Your task to perform on an android device: Open wifi settings Image 0: 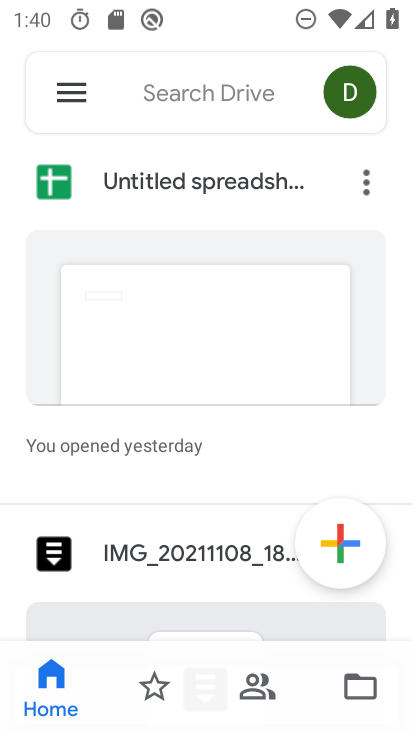
Step 0: press home button
Your task to perform on an android device: Open wifi settings Image 1: 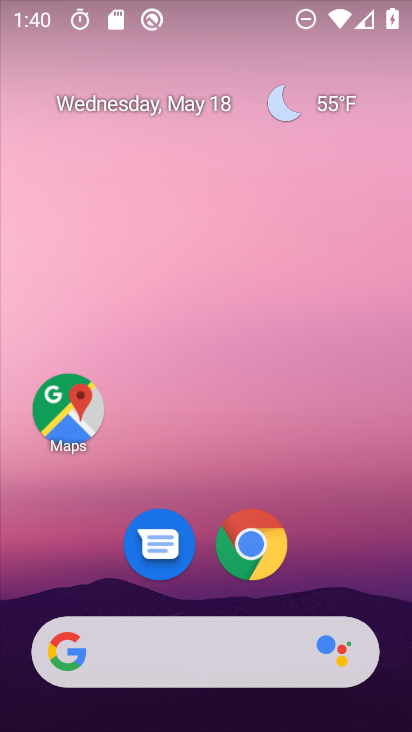
Step 1: drag from (324, 565) to (284, 97)
Your task to perform on an android device: Open wifi settings Image 2: 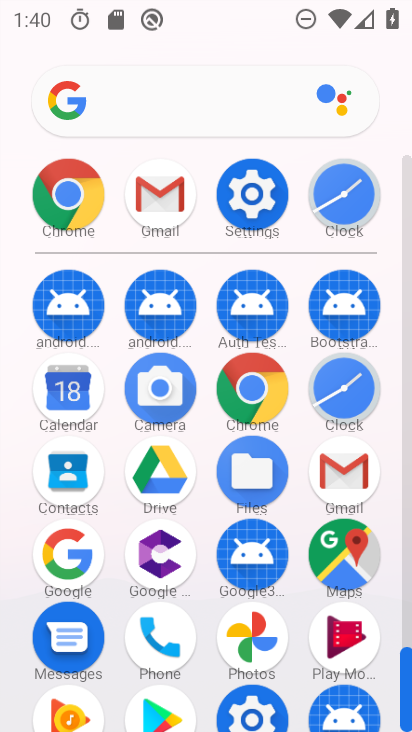
Step 2: click (262, 190)
Your task to perform on an android device: Open wifi settings Image 3: 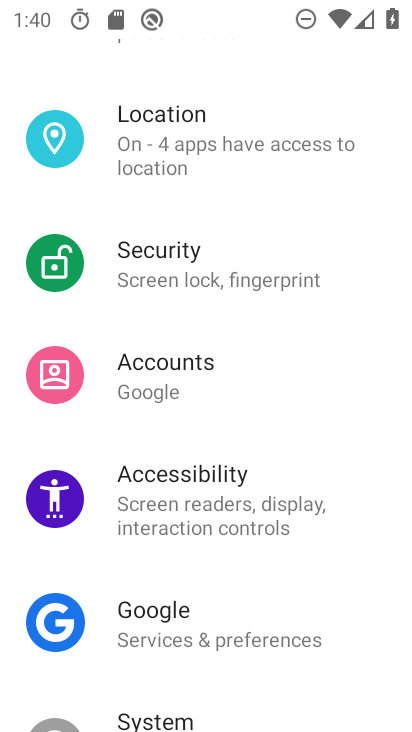
Step 3: drag from (262, 190) to (281, 612)
Your task to perform on an android device: Open wifi settings Image 4: 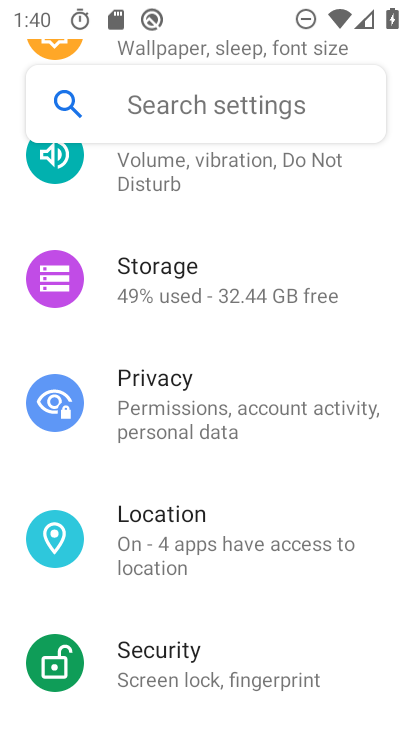
Step 4: drag from (303, 256) to (307, 589)
Your task to perform on an android device: Open wifi settings Image 5: 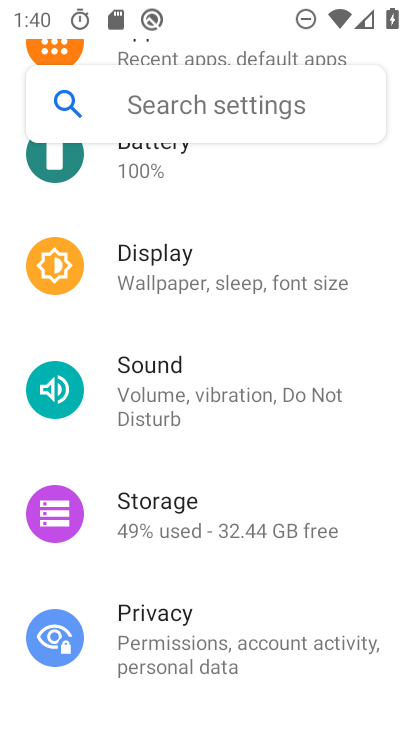
Step 5: drag from (299, 288) to (295, 700)
Your task to perform on an android device: Open wifi settings Image 6: 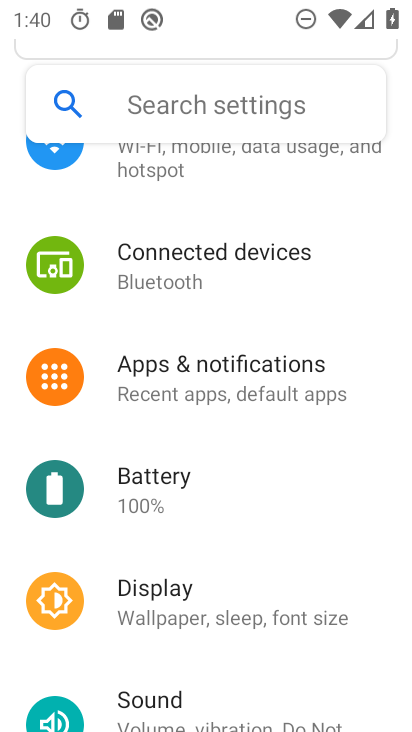
Step 6: drag from (310, 326) to (303, 689)
Your task to perform on an android device: Open wifi settings Image 7: 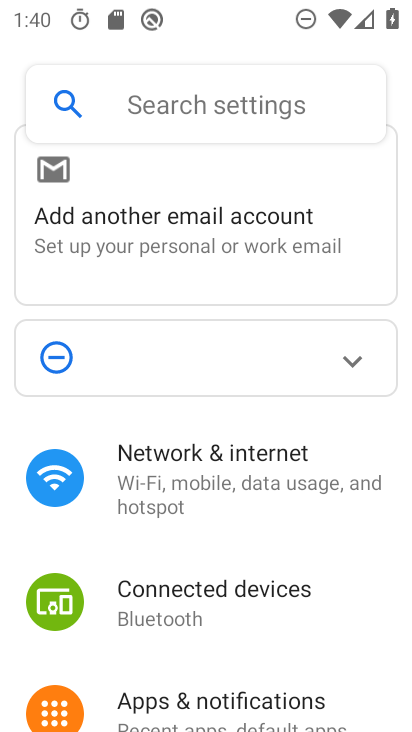
Step 7: click (278, 492)
Your task to perform on an android device: Open wifi settings Image 8: 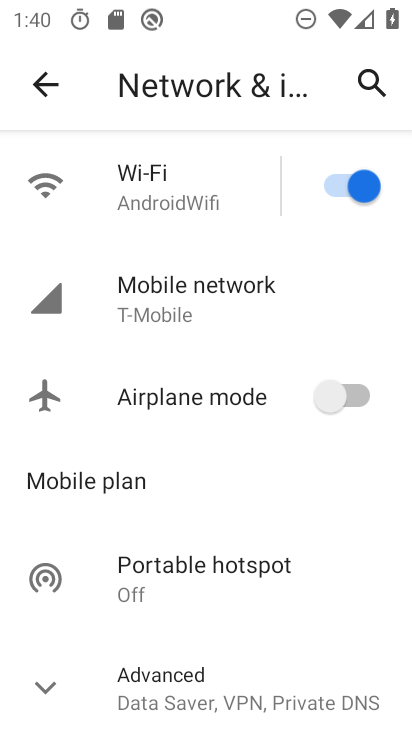
Step 8: click (190, 195)
Your task to perform on an android device: Open wifi settings Image 9: 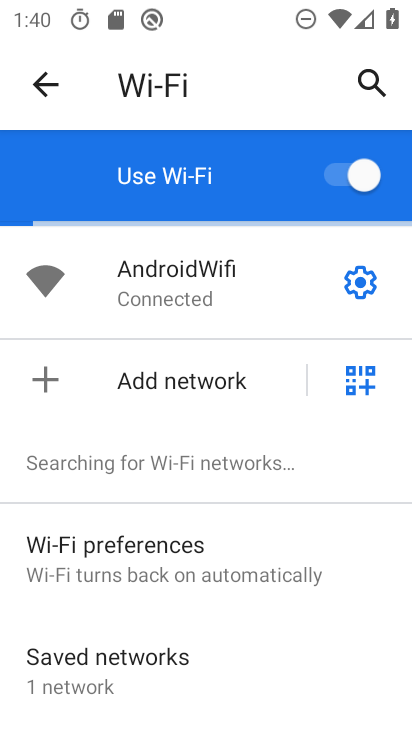
Step 9: task complete